Your task to perform on an android device: Open Google Chrome and open the bookmarks view Image 0: 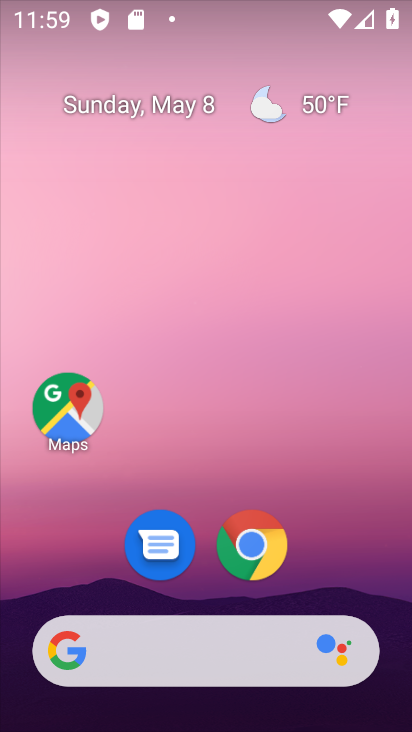
Step 0: click (245, 557)
Your task to perform on an android device: Open Google Chrome and open the bookmarks view Image 1: 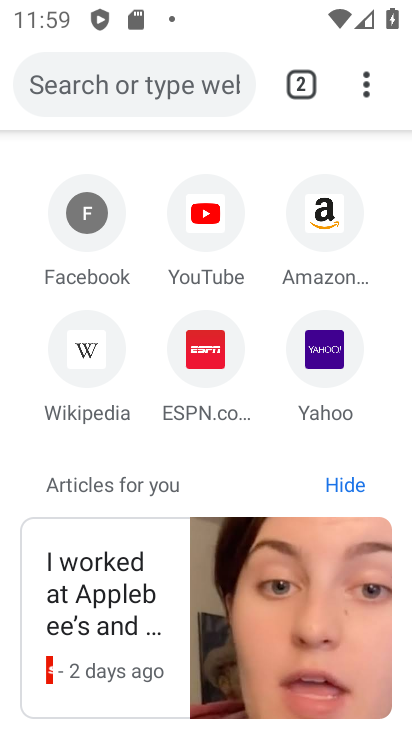
Step 1: click (363, 82)
Your task to perform on an android device: Open Google Chrome and open the bookmarks view Image 2: 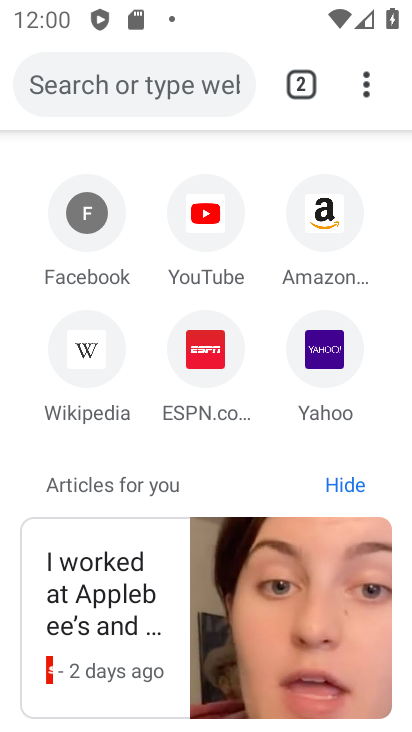
Step 2: task complete